Your task to perform on an android device: show emergency info Image 0: 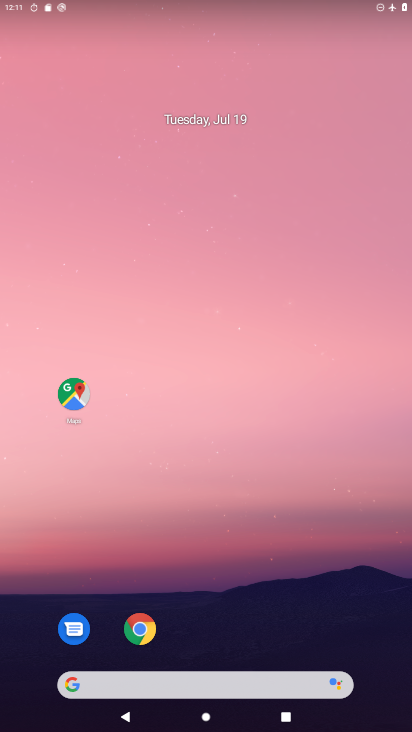
Step 0: click (271, 61)
Your task to perform on an android device: show emergency info Image 1: 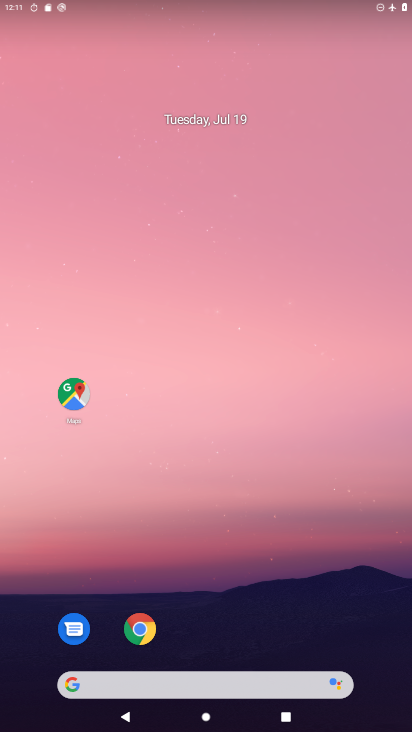
Step 1: drag from (287, 536) to (335, 67)
Your task to perform on an android device: show emergency info Image 2: 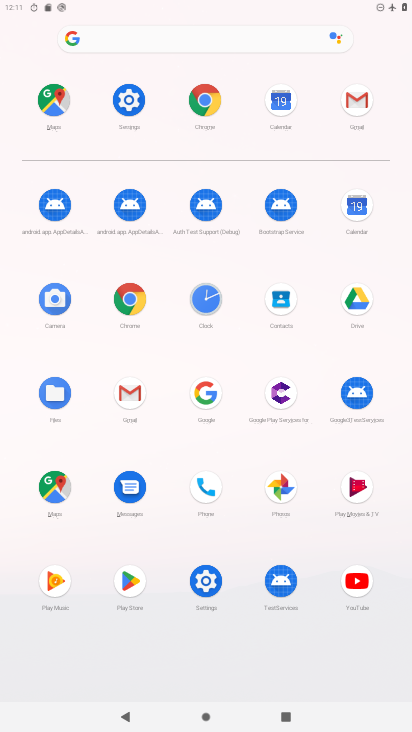
Step 2: click (138, 95)
Your task to perform on an android device: show emergency info Image 3: 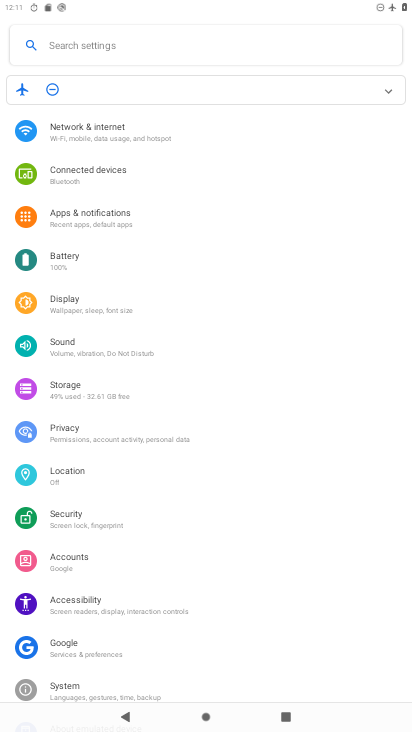
Step 3: drag from (202, 668) to (214, 181)
Your task to perform on an android device: show emergency info Image 4: 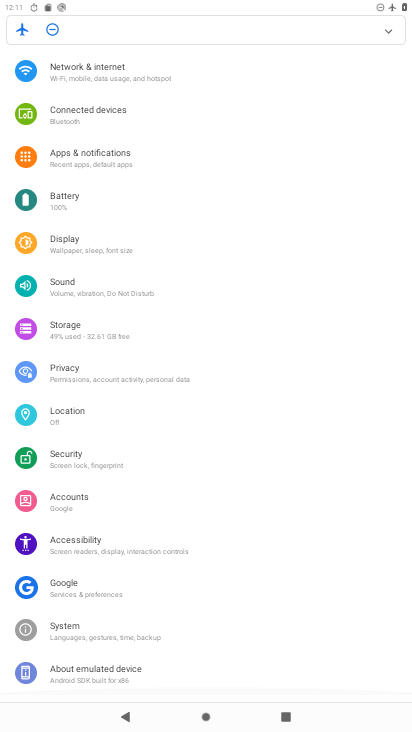
Step 4: click (96, 677)
Your task to perform on an android device: show emergency info Image 5: 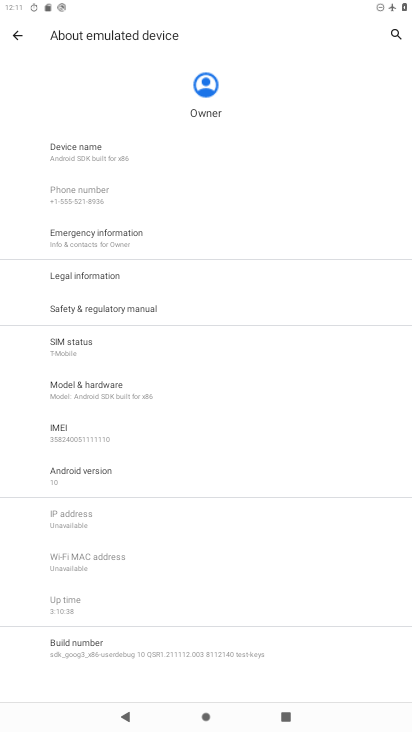
Step 5: click (107, 245)
Your task to perform on an android device: show emergency info Image 6: 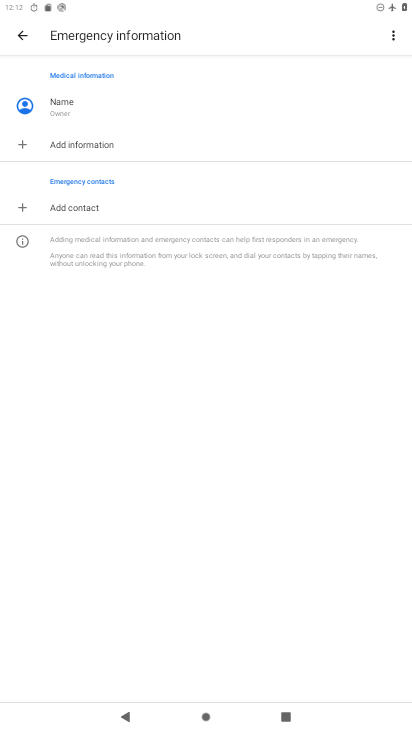
Step 6: task complete